Your task to perform on an android device: turn on javascript in the chrome app Image 0: 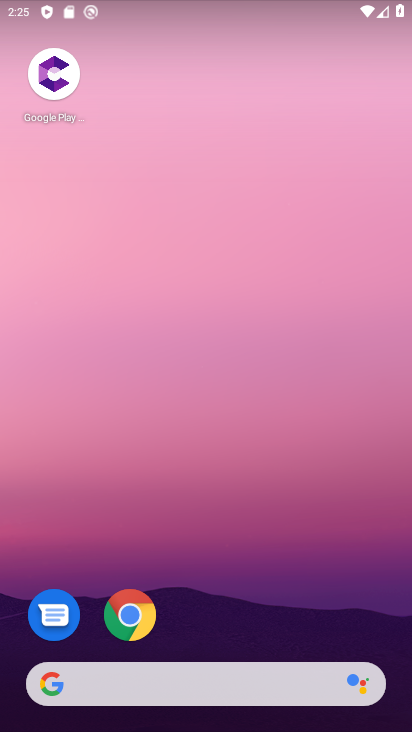
Step 0: drag from (336, 616) to (354, 4)
Your task to perform on an android device: turn on javascript in the chrome app Image 1: 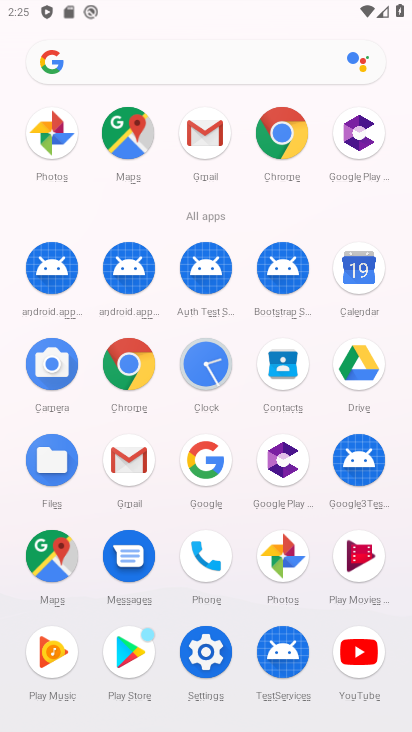
Step 1: click (127, 370)
Your task to perform on an android device: turn on javascript in the chrome app Image 2: 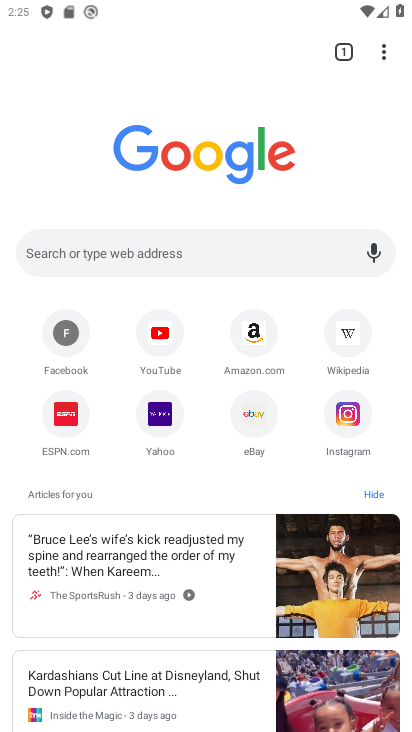
Step 2: click (373, 50)
Your task to perform on an android device: turn on javascript in the chrome app Image 3: 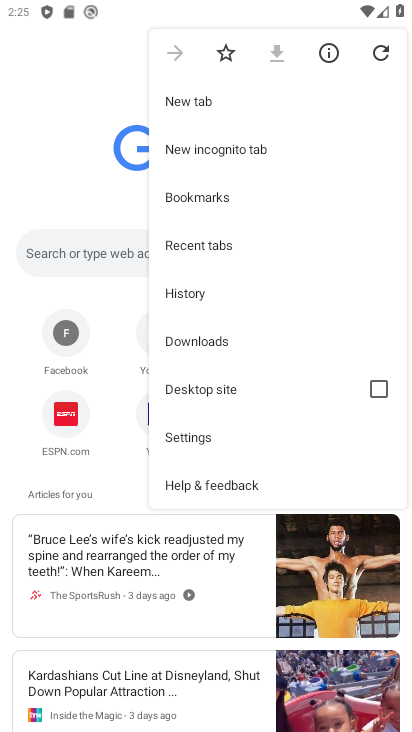
Step 3: drag from (320, 400) to (331, 157)
Your task to perform on an android device: turn on javascript in the chrome app Image 4: 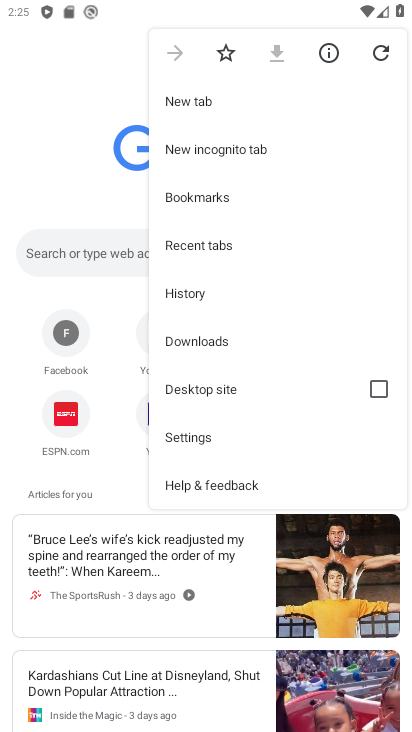
Step 4: click (214, 438)
Your task to perform on an android device: turn on javascript in the chrome app Image 5: 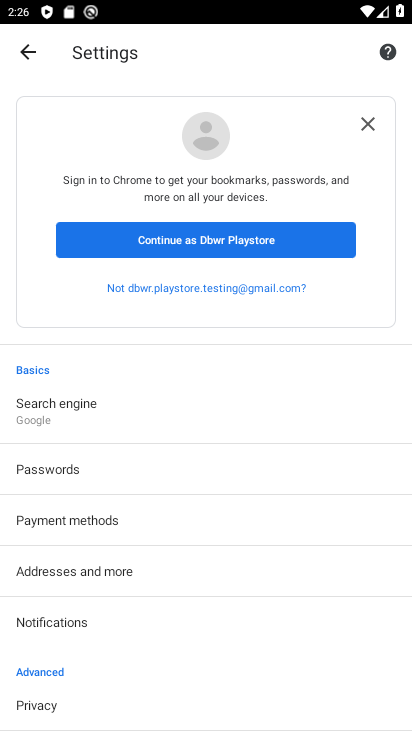
Step 5: drag from (131, 681) to (160, 322)
Your task to perform on an android device: turn on javascript in the chrome app Image 6: 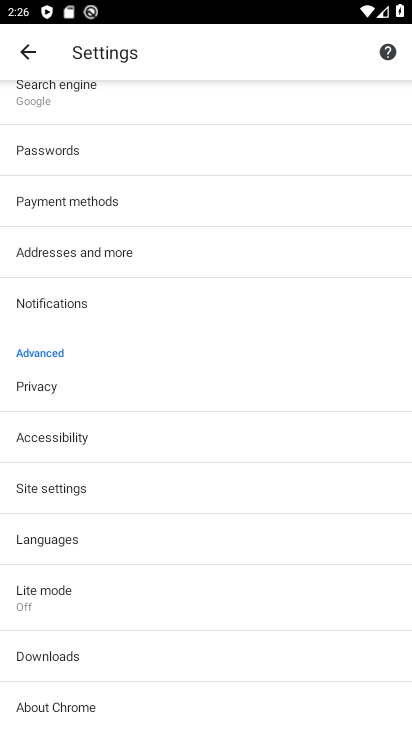
Step 6: click (91, 483)
Your task to perform on an android device: turn on javascript in the chrome app Image 7: 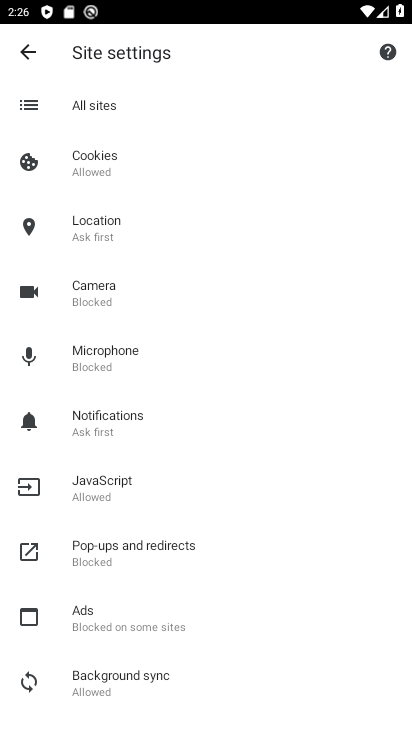
Step 7: click (149, 486)
Your task to perform on an android device: turn on javascript in the chrome app Image 8: 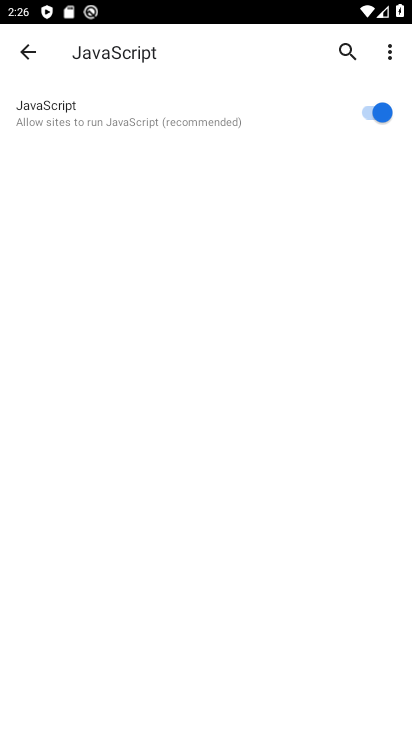
Step 8: task complete